Your task to perform on an android device: delete the emails in spam in the gmail app Image 0: 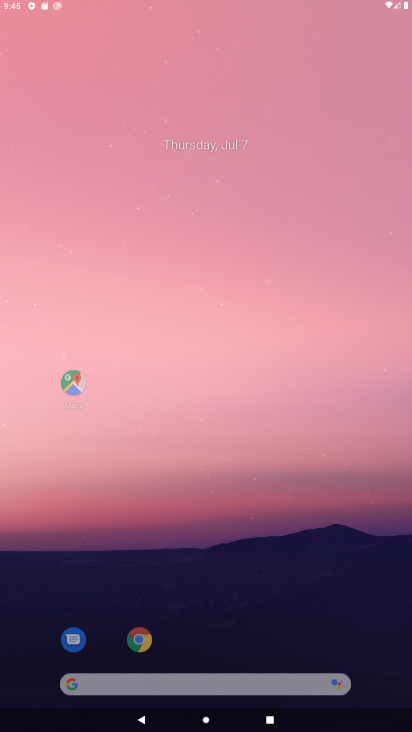
Step 0: press home button
Your task to perform on an android device: delete the emails in spam in the gmail app Image 1: 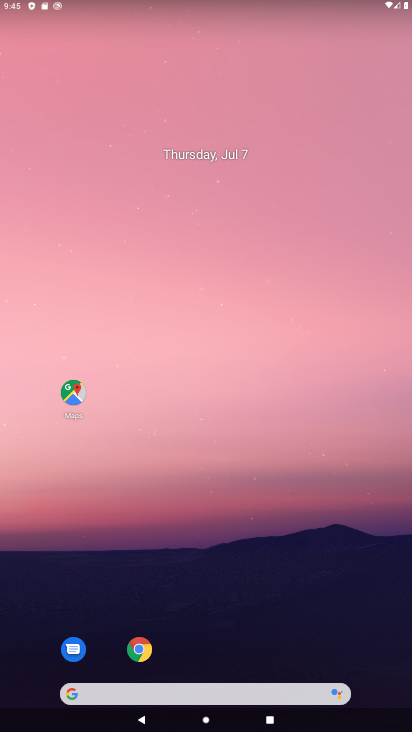
Step 1: drag from (267, 632) to (219, 29)
Your task to perform on an android device: delete the emails in spam in the gmail app Image 2: 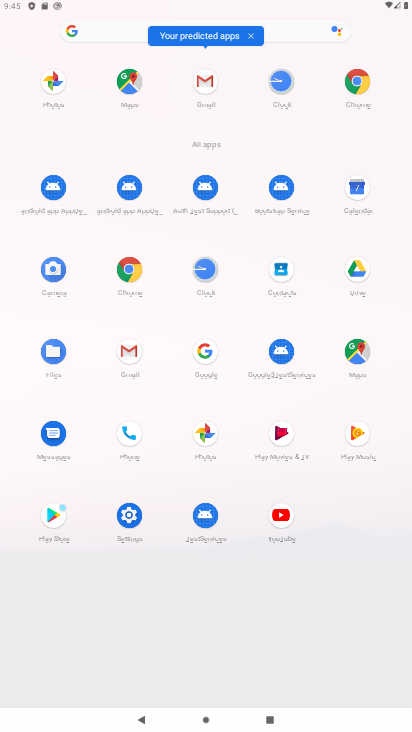
Step 2: click (130, 356)
Your task to perform on an android device: delete the emails in spam in the gmail app Image 3: 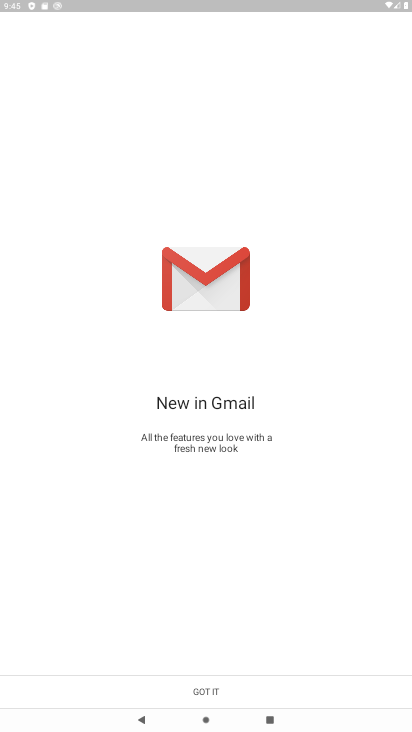
Step 3: click (264, 690)
Your task to perform on an android device: delete the emails in spam in the gmail app Image 4: 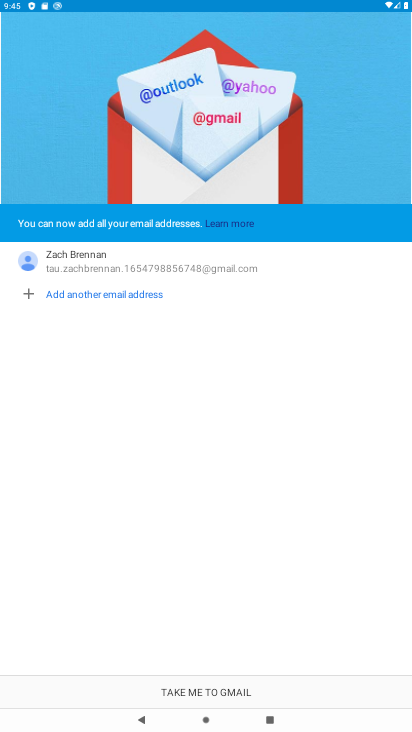
Step 4: click (264, 690)
Your task to perform on an android device: delete the emails in spam in the gmail app Image 5: 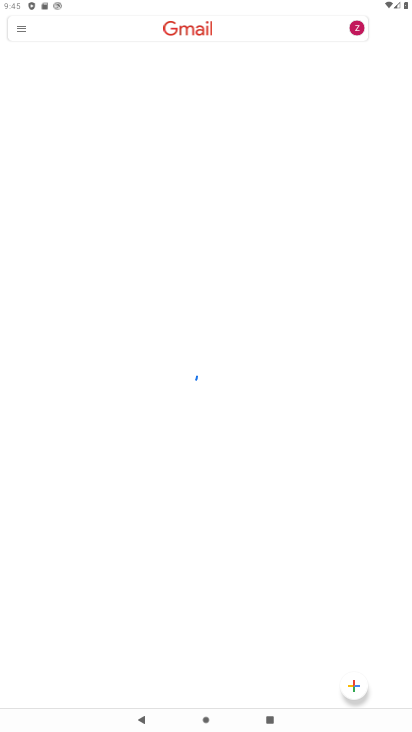
Step 5: click (21, 30)
Your task to perform on an android device: delete the emails in spam in the gmail app Image 6: 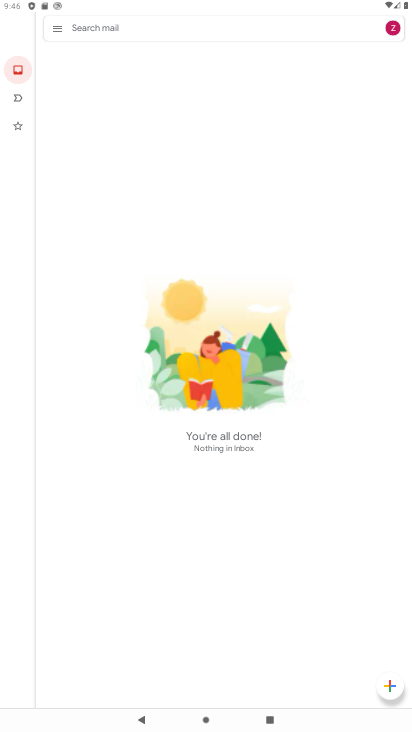
Step 6: click (59, 30)
Your task to perform on an android device: delete the emails in spam in the gmail app Image 7: 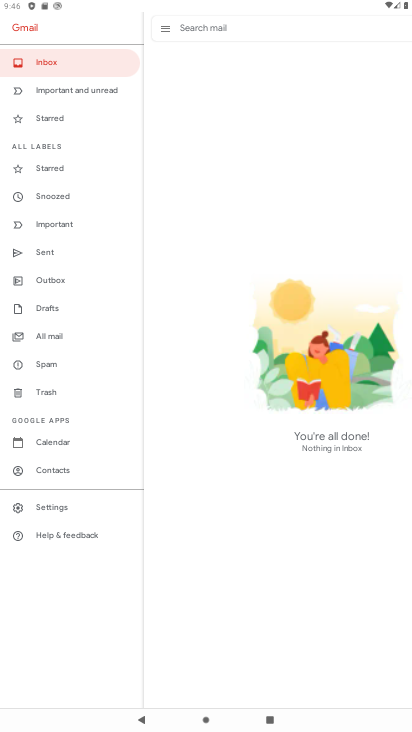
Step 7: click (56, 364)
Your task to perform on an android device: delete the emails in spam in the gmail app Image 8: 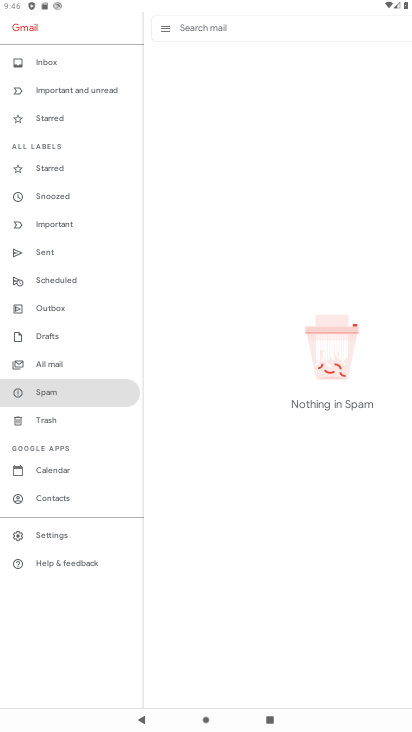
Step 8: task complete